Your task to perform on an android device: change timer sound Image 0: 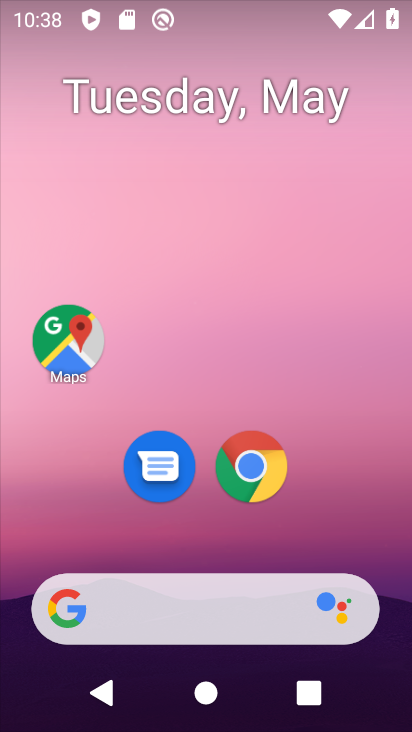
Step 0: drag from (210, 573) to (202, 196)
Your task to perform on an android device: change timer sound Image 1: 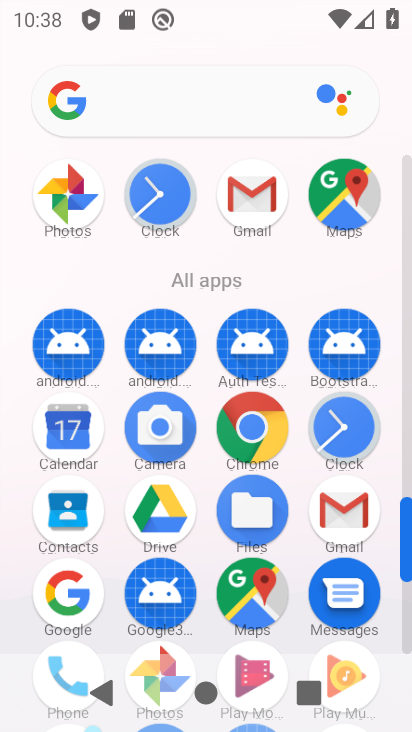
Step 1: drag from (107, 601) to (90, 324)
Your task to perform on an android device: change timer sound Image 2: 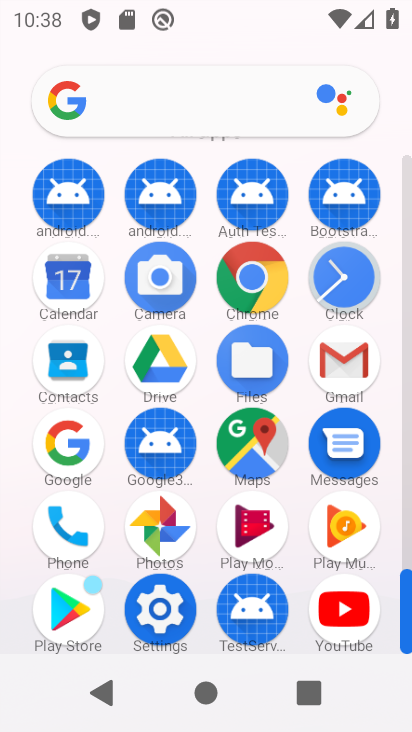
Step 2: click (336, 281)
Your task to perform on an android device: change timer sound Image 3: 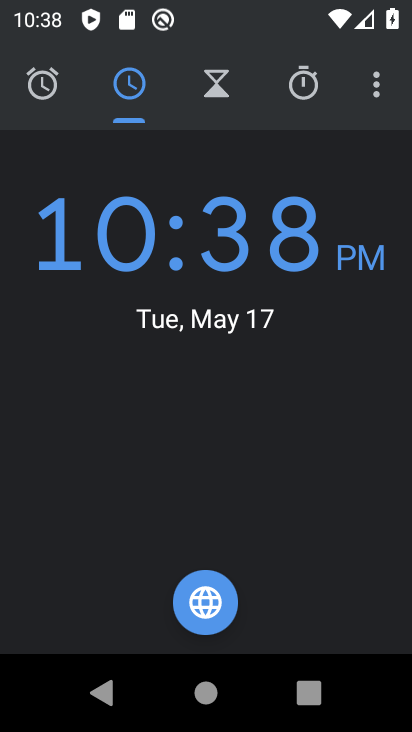
Step 3: click (380, 83)
Your task to perform on an android device: change timer sound Image 4: 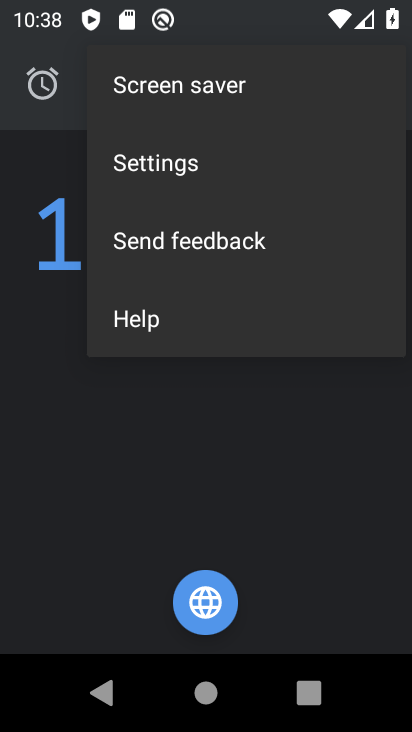
Step 4: click (137, 168)
Your task to perform on an android device: change timer sound Image 5: 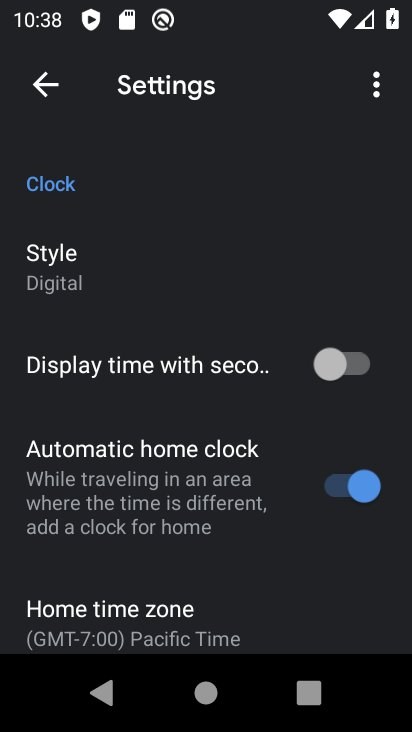
Step 5: drag from (133, 604) to (124, 265)
Your task to perform on an android device: change timer sound Image 6: 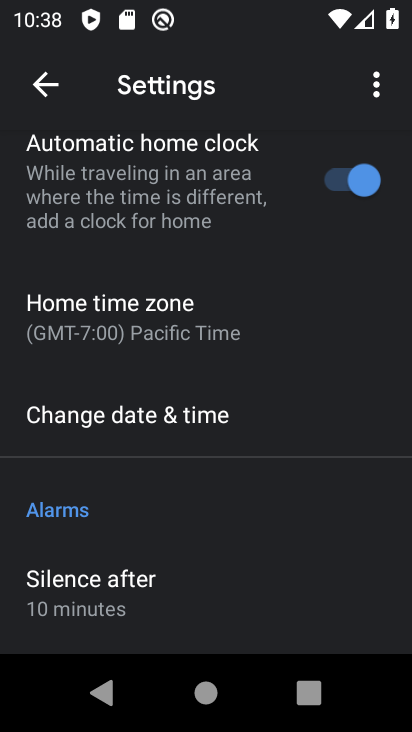
Step 6: drag from (91, 612) to (94, 340)
Your task to perform on an android device: change timer sound Image 7: 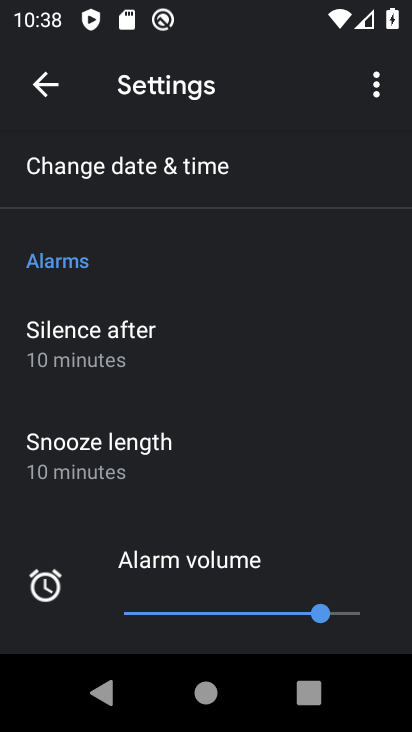
Step 7: drag from (121, 542) to (99, 282)
Your task to perform on an android device: change timer sound Image 8: 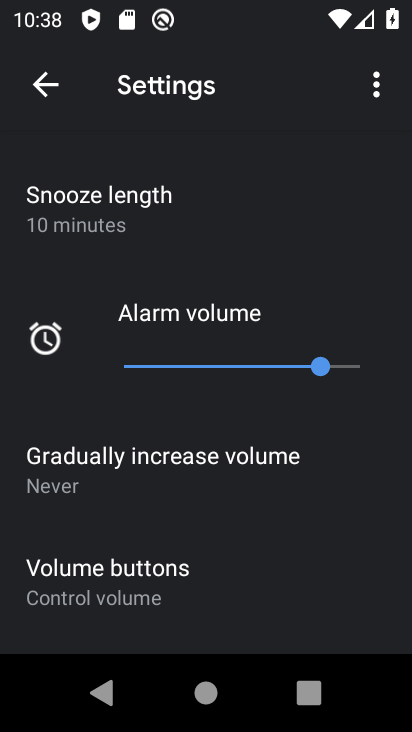
Step 8: drag from (141, 607) to (138, 300)
Your task to perform on an android device: change timer sound Image 9: 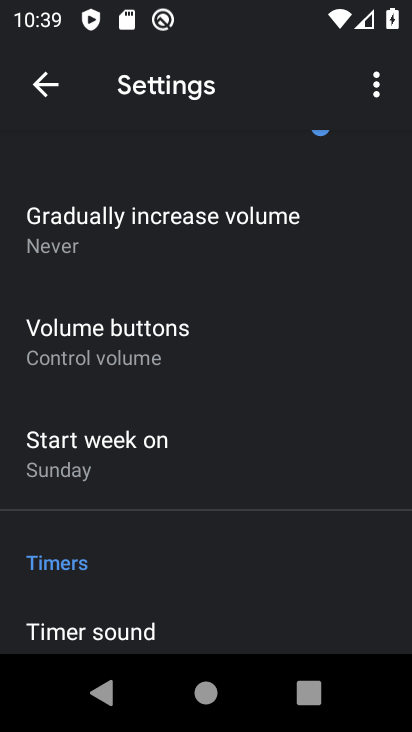
Step 9: drag from (150, 597) to (144, 301)
Your task to perform on an android device: change timer sound Image 10: 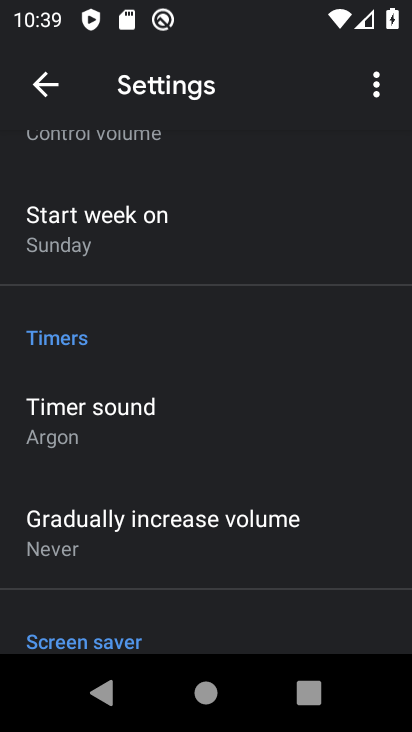
Step 10: click (125, 414)
Your task to perform on an android device: change timer sound Image 11: 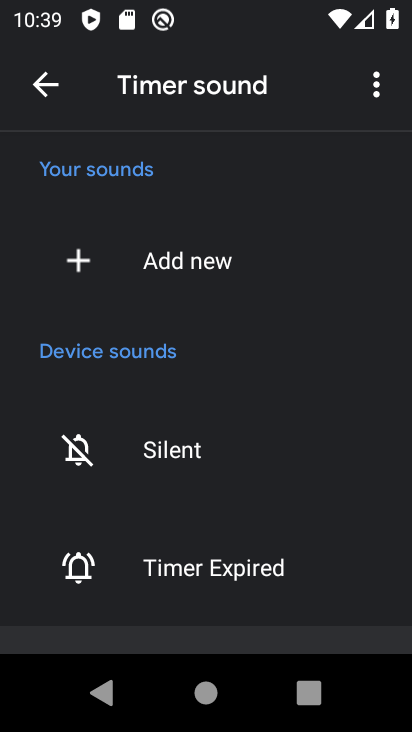
Step 11: click (167, 568)
Your task to perform on an android device: change timer sound Image 12: 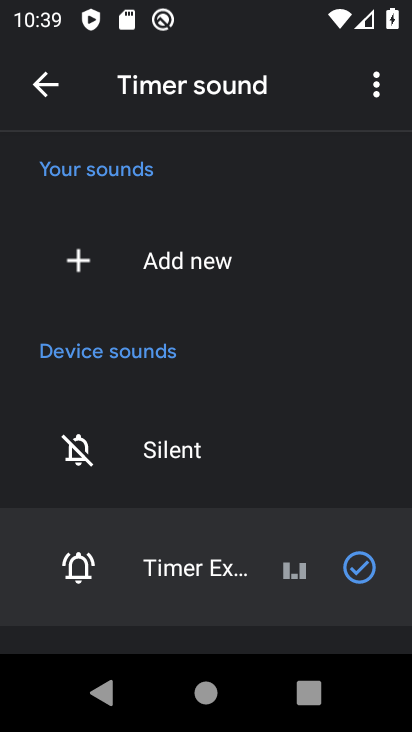
Step 12: task complete